Your task to perform on an android device: Check the news Image 0: 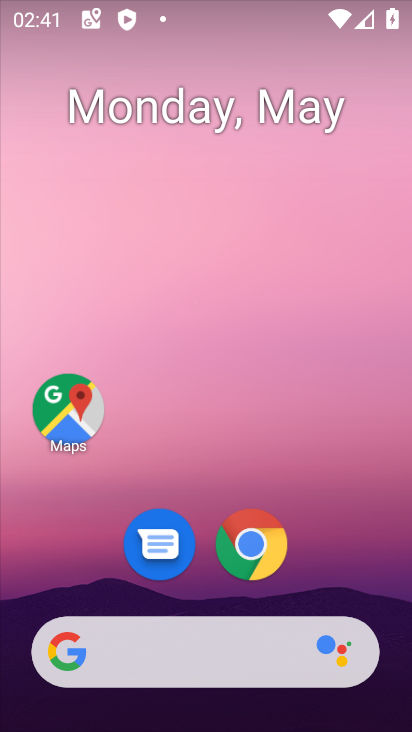
Step 0: drag from (18, 281) to (411, 356)
Your task to perform on an android device: Check the news Image 1: 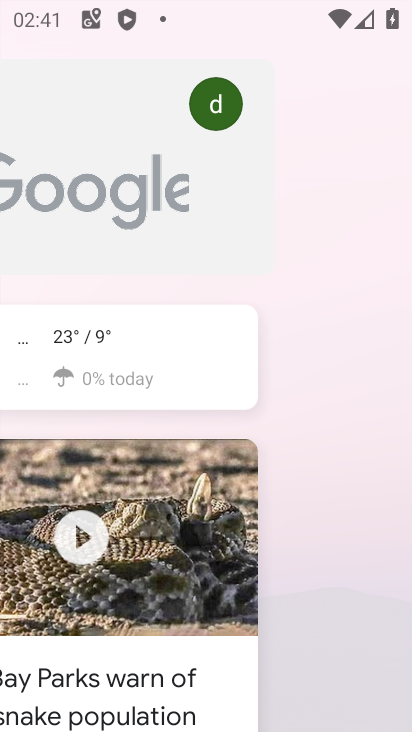
Step 1: task complete